Your task to perform on an android device: turn off translation in the chrome app Image 0: 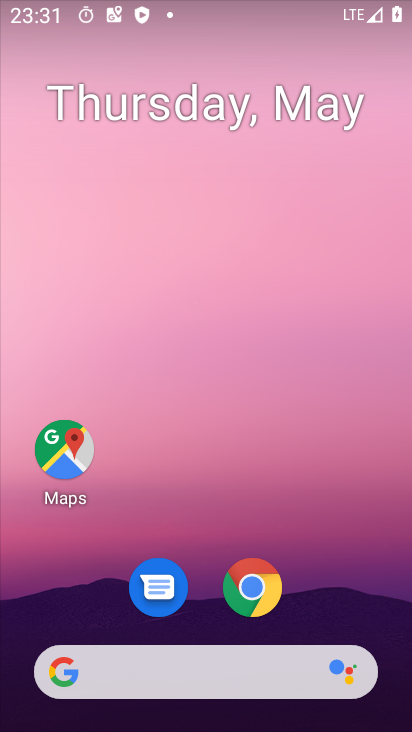
Step 0: click (258, 593)
Your task to perform on an android device: turn off translation in the chrome app Image 1: 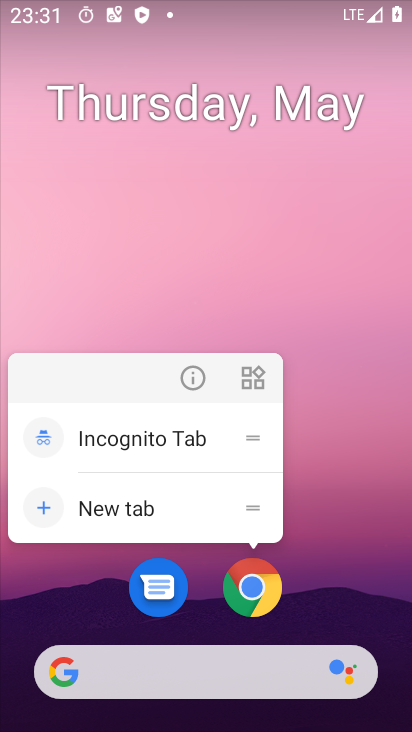
Step 1: click (273, 596)
Your task to perform on an android device: turn off translation in the chrome app Image 2: 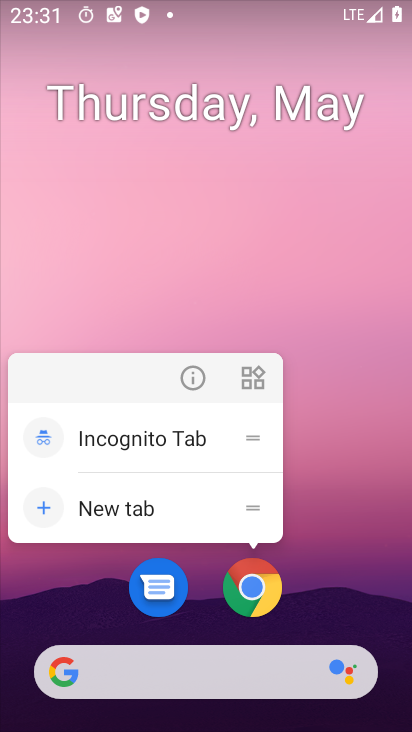
Step 2: click (253, 589)
Your task to perform on an android device: turn off translation in the chrome app Image 3: 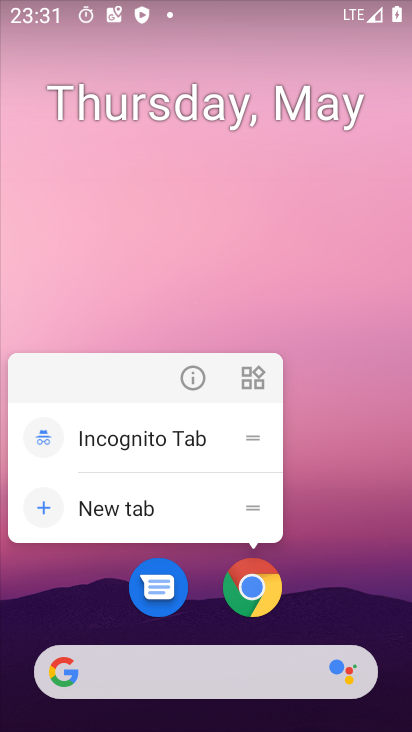
Step 3: click (253, 589)
Your task to perform on an android device: turn off translation in the chrome app Image 4: 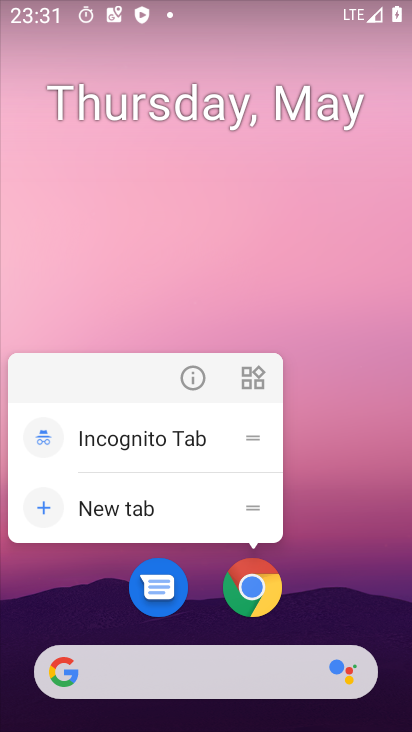
Step 4: click (253, 589)
Your task to perform on an android device: turn off translation in the chrome app Image 5: 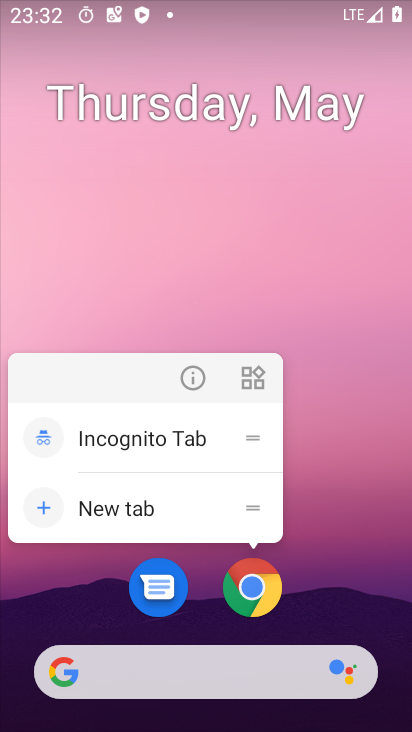
Step 5: click (253, 589)
Your task to perform on an android device: turn off translation in the chrome app Image 6: 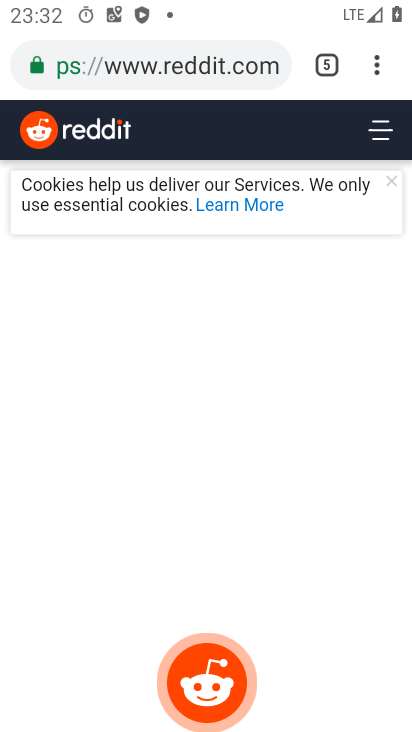
Step 6: click (378, 63)
Your task to perform on an android device: turn off translation in the chrome app Image 7: 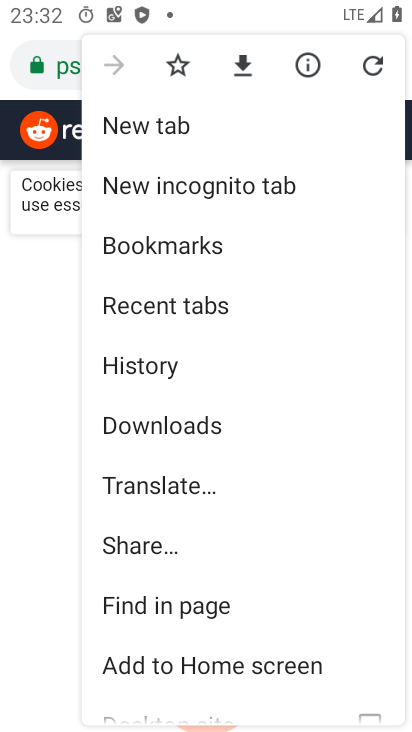
Step 7: drag from (263, 618) to (239, 248)
Your task to perform on an android device: turn off translation in the chrome app Image 8: 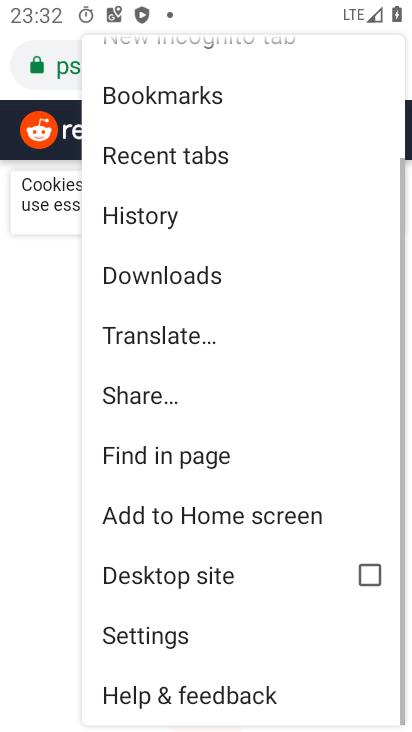
Step 8: click (143, 648)
Your task to perform on an android device: turn off translation in the chrome app Image 9: 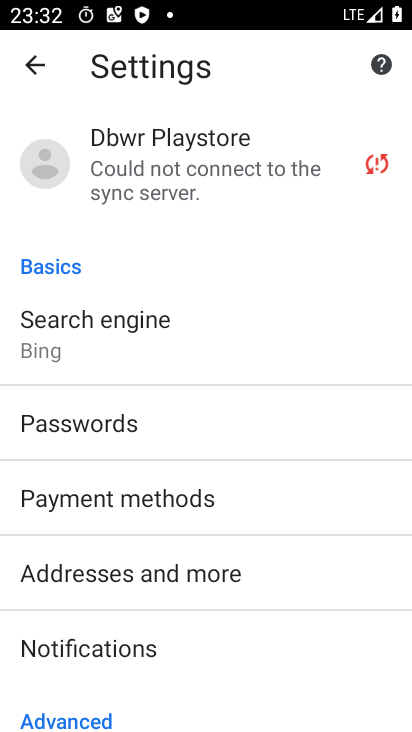
Step 9: drag from (187, 629) to (137, 151)
Your task to perform on an android device: turn off translation in the chrome app Image 10: 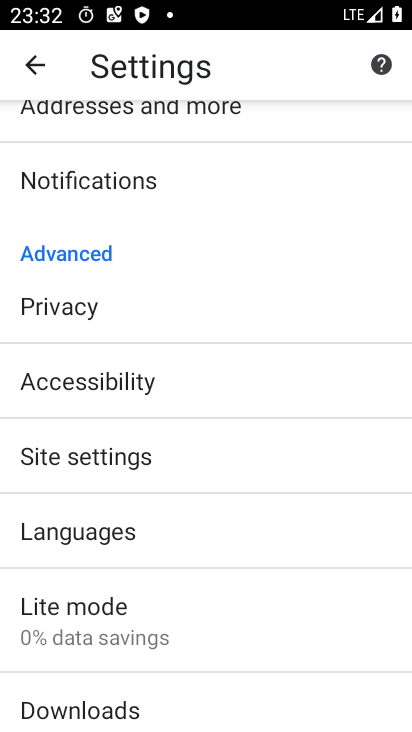
Step 10: click (107, 532)
Your task to perform on an android device: turn off translation in the chrome app Image 11: 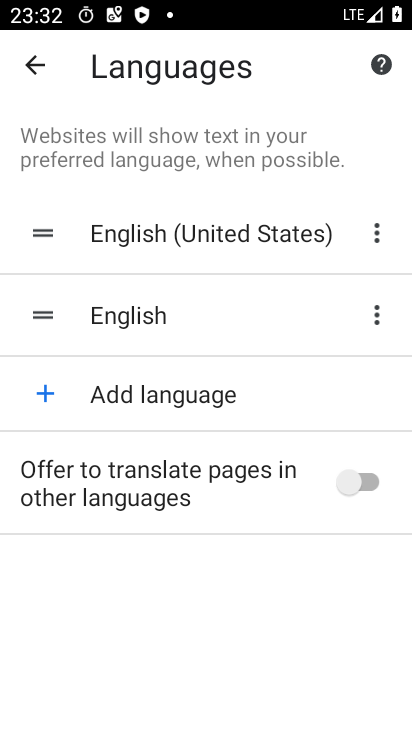
Step 11: task complete